Your task to perform on an android device: Set the phone to "Do not disturb". Image 0: 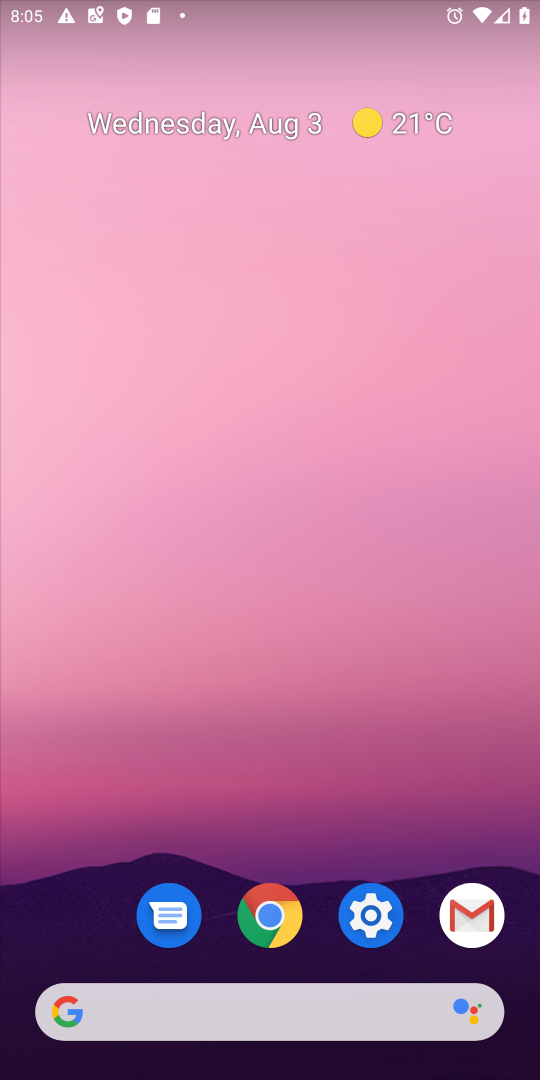
Step 0: press home button
Your task to perform on an android device: Set the phone to "Do not disturb". Image 1: 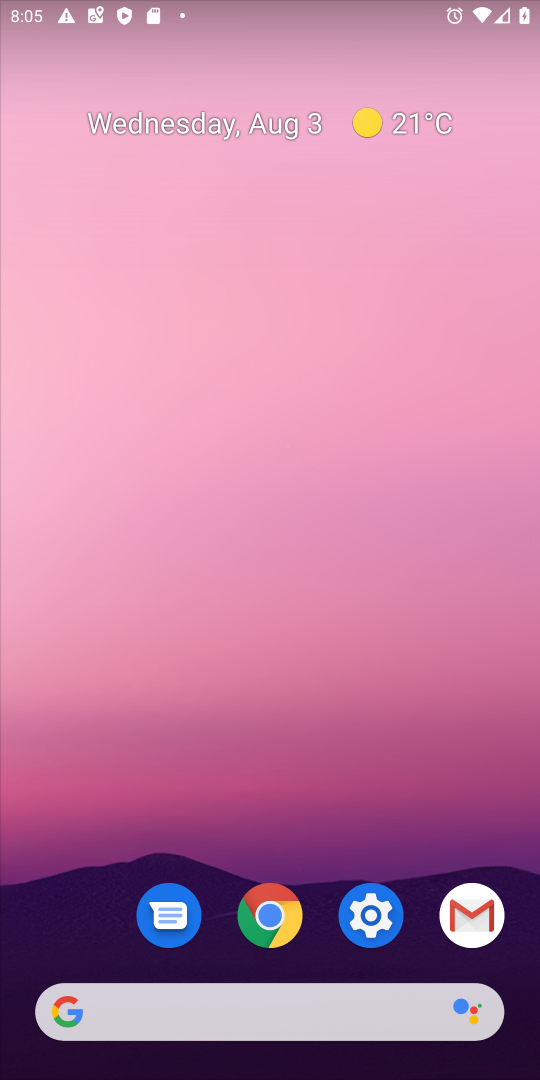
Step 1: drag from (341, 1041) to (396, 397)
Your task to perform on an android device: Set the phone to "Do not disturb". Image 2: 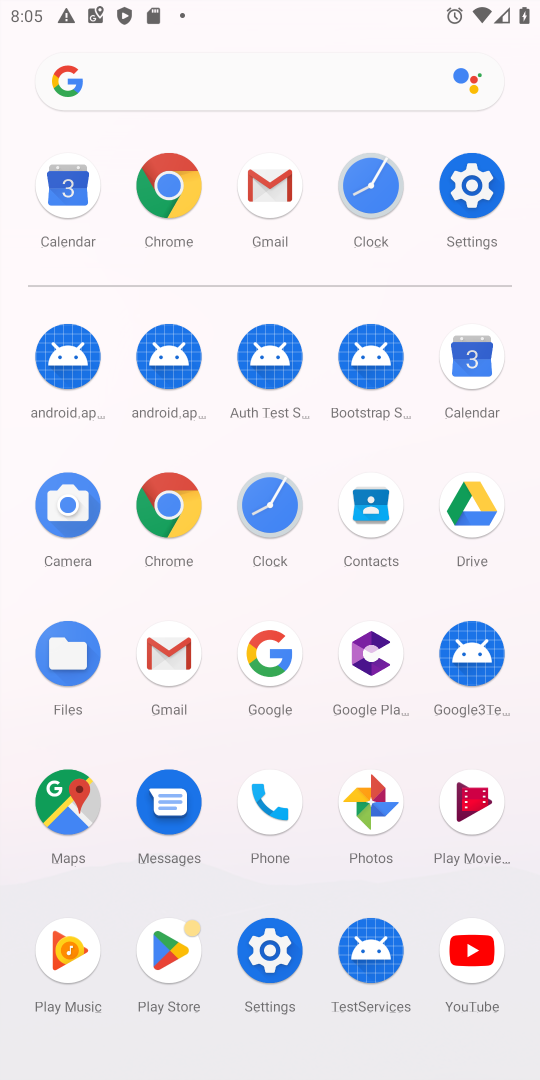
Step 2: click (460, 179)
Your task to perform on an android device: Set the phone to "Do not disturb". Image 3: 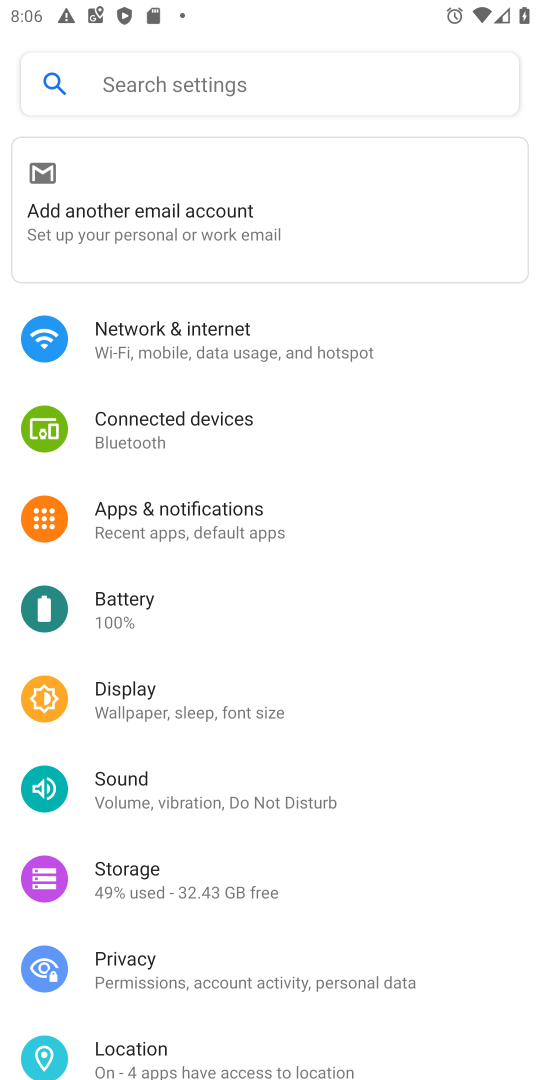
Step 3: click (135, 106)
Your task to perform on an android device: Set the phone to "Do not disturb". Image 4: 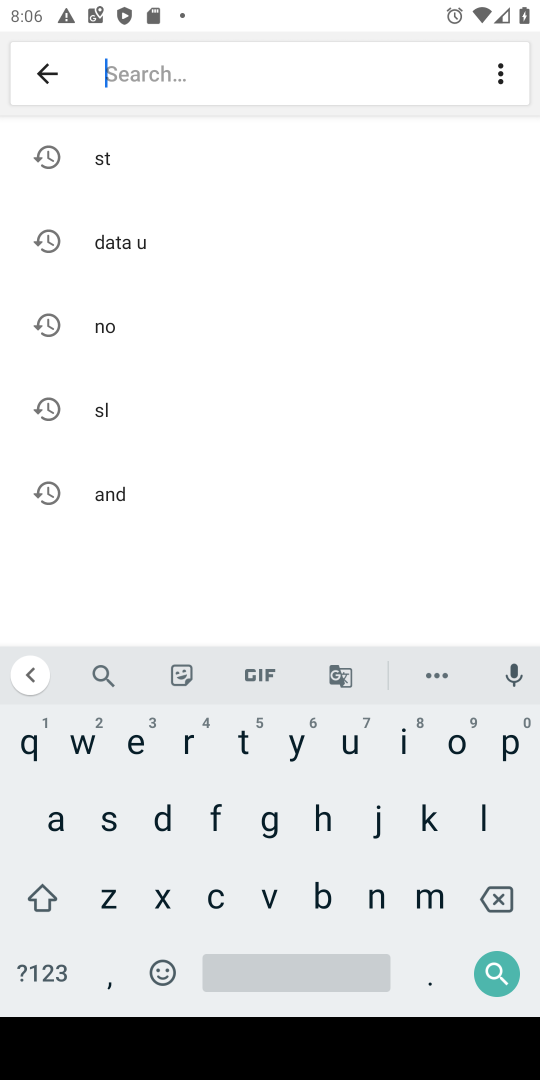
Step 4: click (150, 813)
Your task to perform on an android device: Set the phone to "Do not disturb". Image 5: 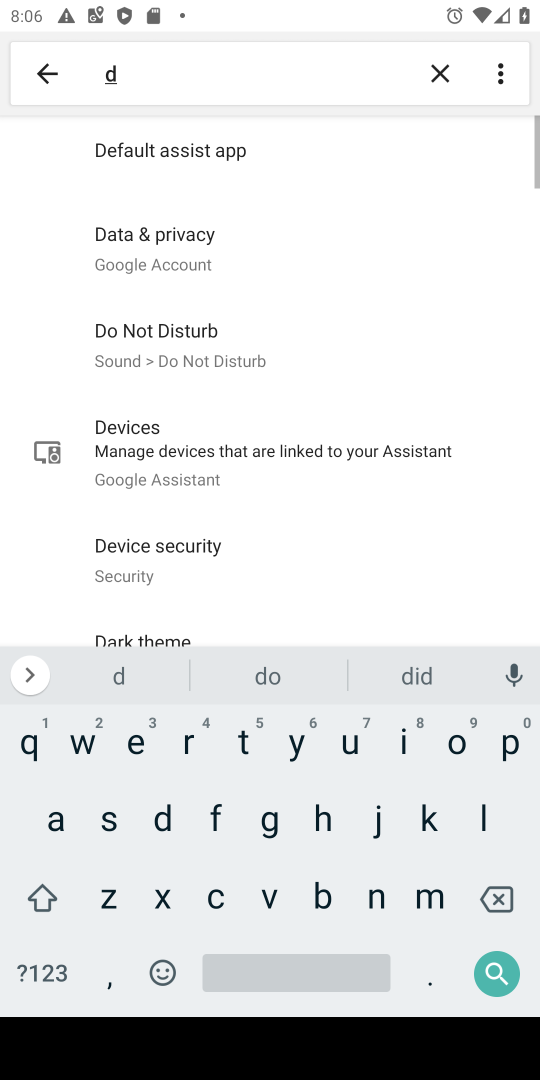
Step 5: click (381, 887)
Your task to perform on an android device: Set the phone to "Do not disturb". Image 6: 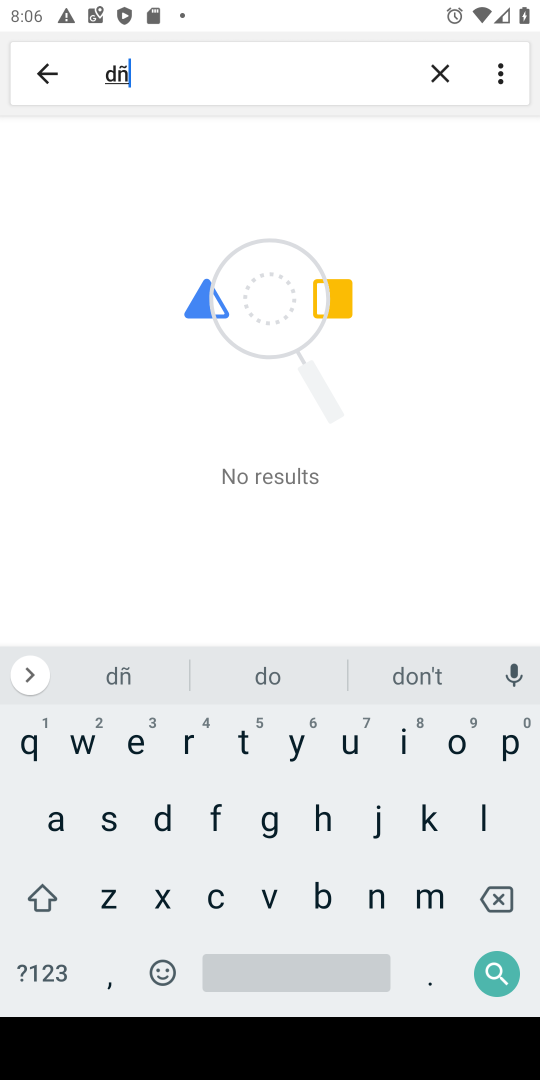
Step 6: click (493, 892)
Your task to perform on an android device: Set the phone to "Do not disturb". Image 7: 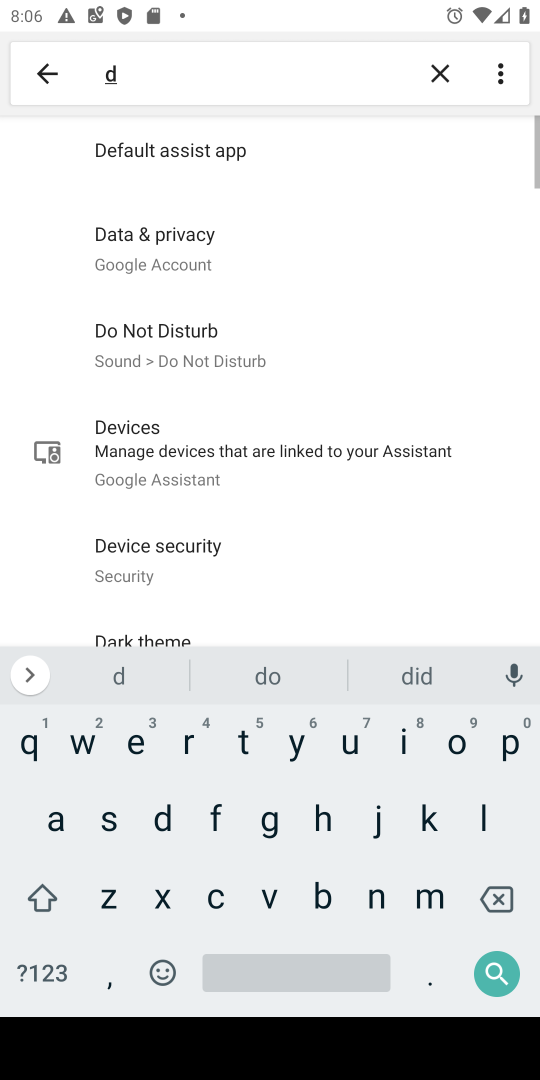
Step 7: click (372, 893)
Your task to perform on an android device: Set the phone to "Do not disturb". Image 8: 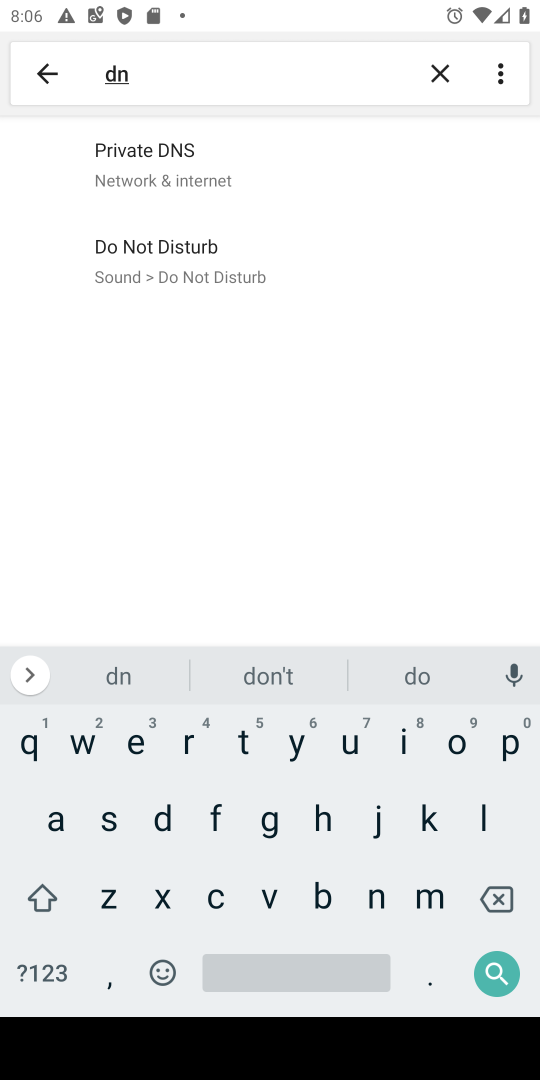
Step 8: click (181, 265)
Your task to perform on an android device: Set the phone to "Do not disturb". Image 9: 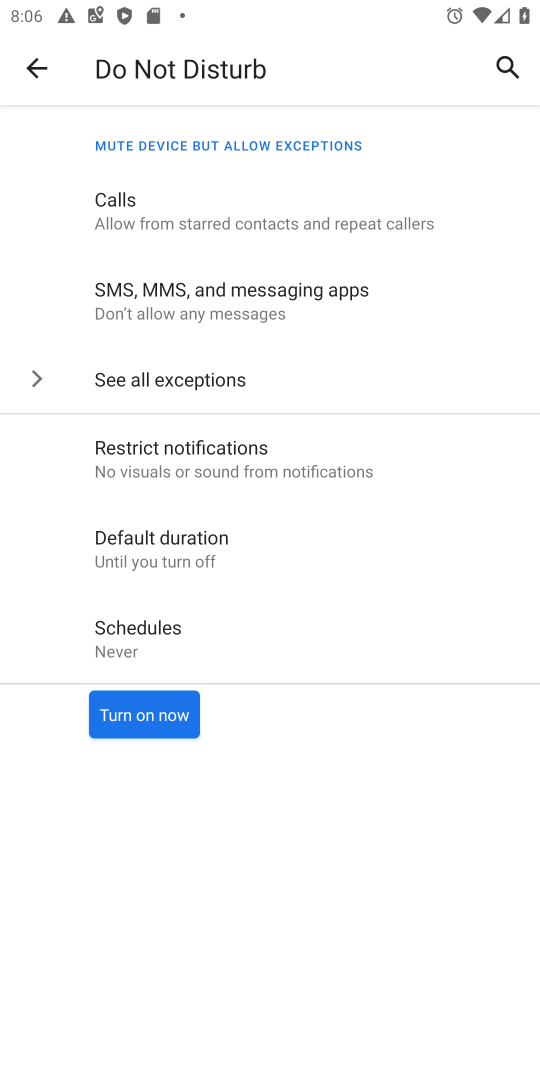
Step 9: task complete